Your task to perform on an android device: check data usage Image 0: 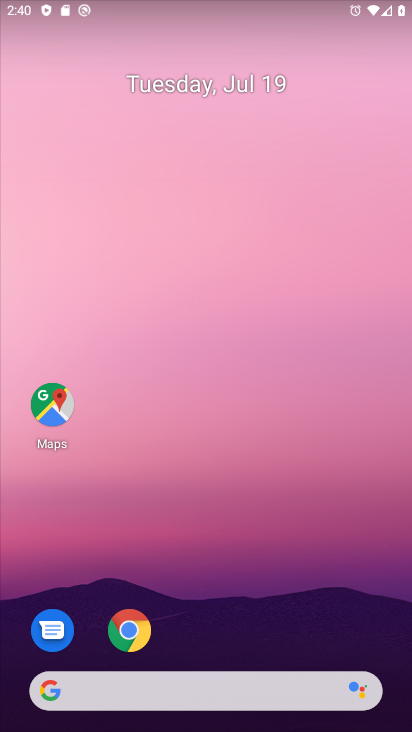
Step 0: drag from (225, 604) to (274, 106)
Your task to perform on an android device: check data usage Image 1: 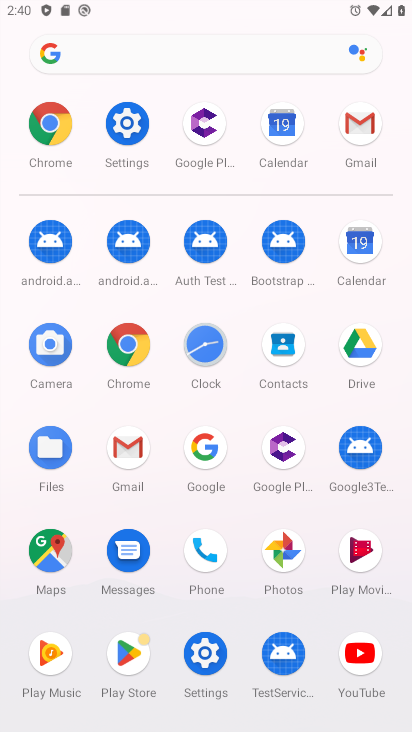
Step 1: click (126, 123)
Your task to perform on an android device: check data usage Image 2: 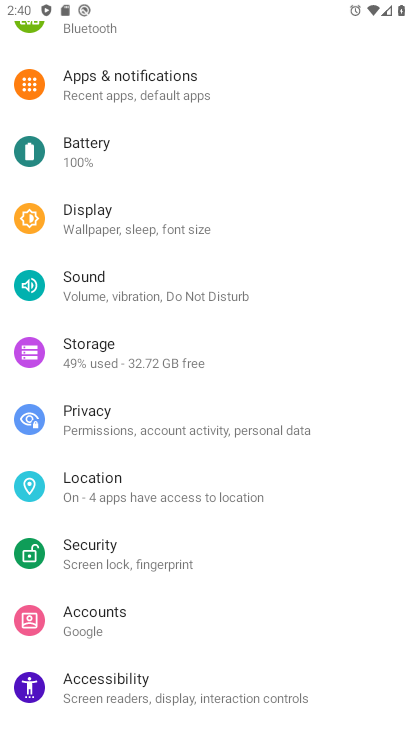
Step 2: drag from (232, 261) to (219, 641)
Your task to perform on an android device: check data usage Image 3: 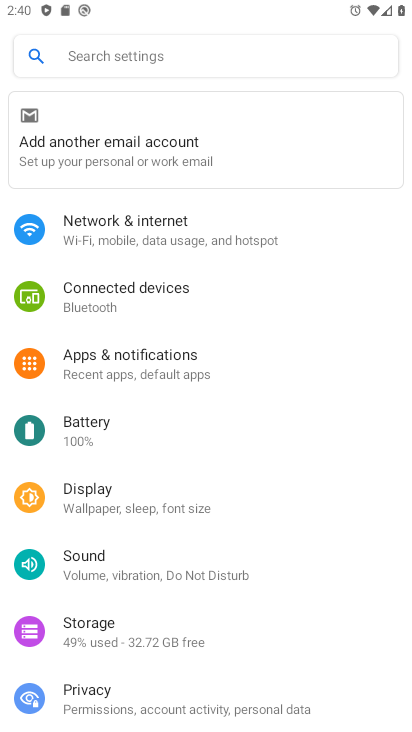
Step 3: click (205, 231)
Your task to perform on an android device: check data usage Image 4: 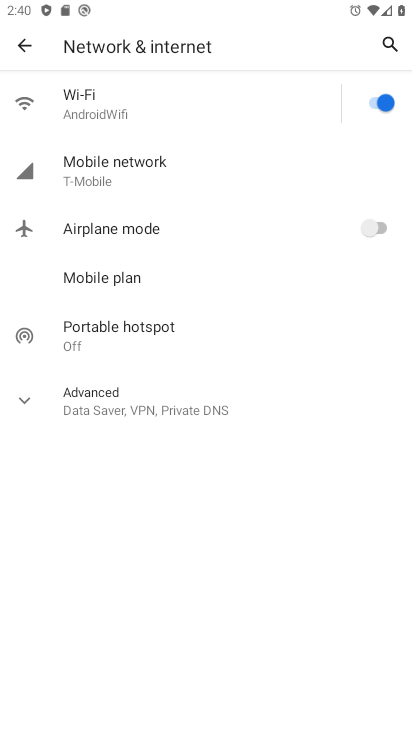
Step 4: click (202, 154)
Your task to perform on an android device: check data usage Image 5: 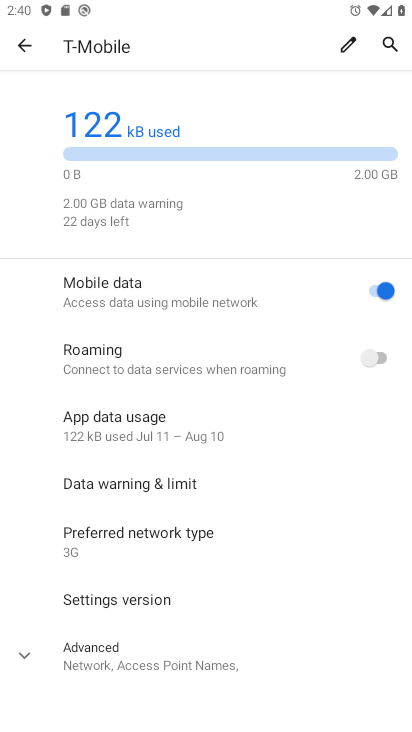
Step 5: task complete